Your task to perform on an android device: Open Wikipedia Image 0: 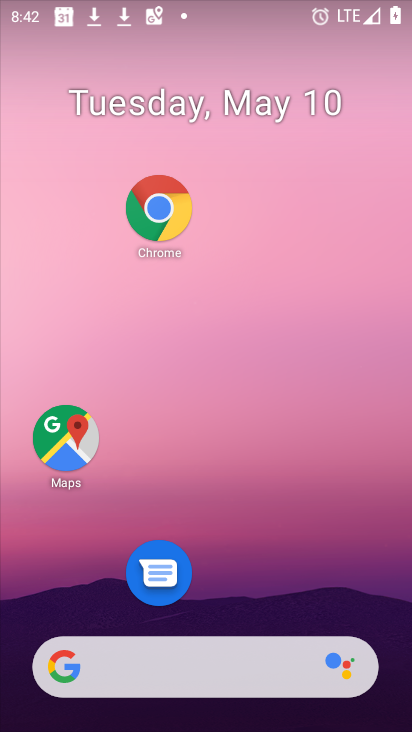
Step 0: press home button
Your task to perform on an android device: Open Wikipedia Image 1: 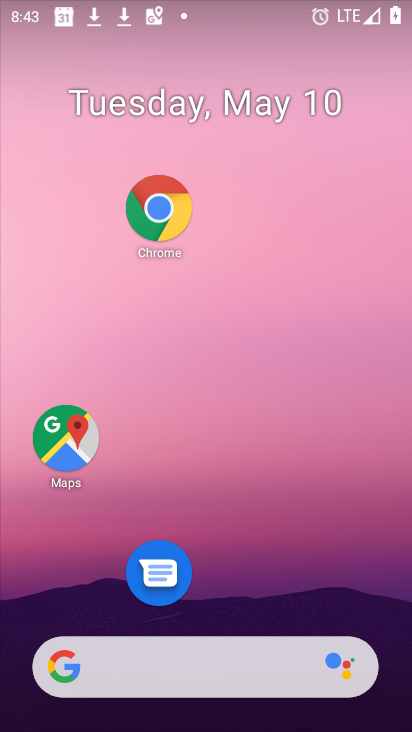
Step 1: drag from (216, 690) to (311, 176)
Your task to perform on an android device: Open Wikipedia Image 2: 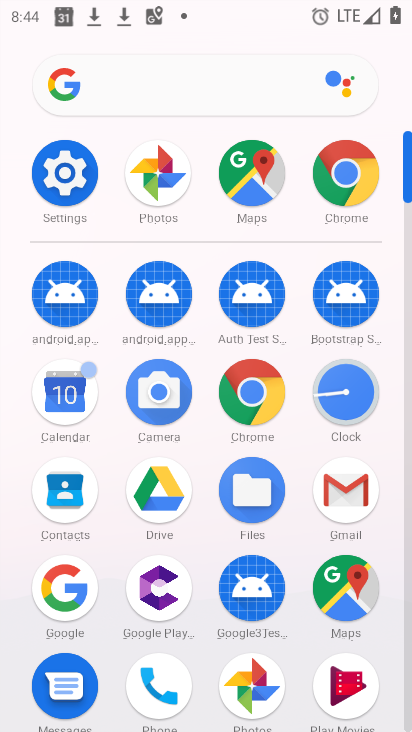
Step 2: click (329, 187)
Your task to perform on an android device: Open Wikipedia Image 3: 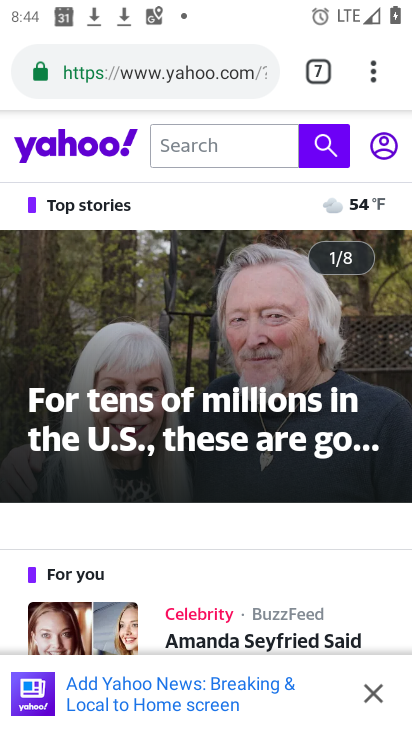
Step 3: click (319, 60)
Your task to perform on an android device: Open Wikipedia Image 4: 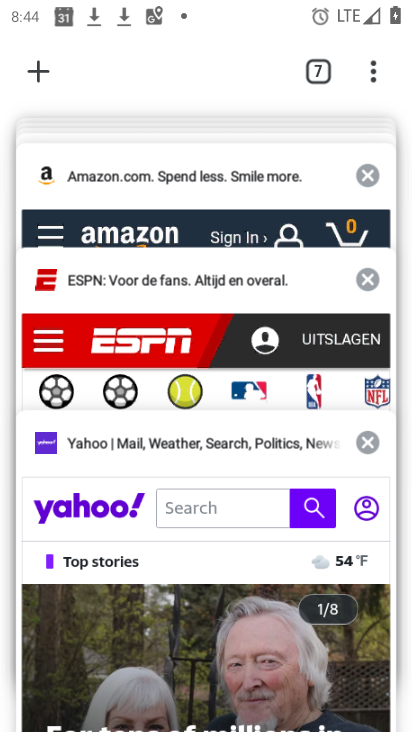
Step 4: click (36, 67)
Your task to perform on an android device: Open Wikipedia Image 5: 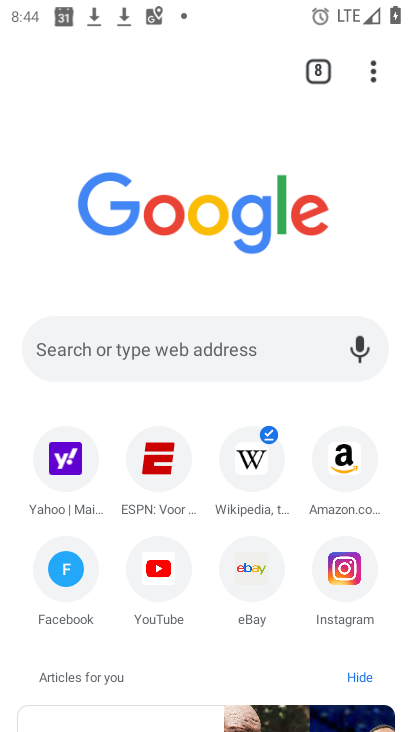
Step 5: click (255, 459)
Your task to perform on an android device: Open Wikipedia Image 6: 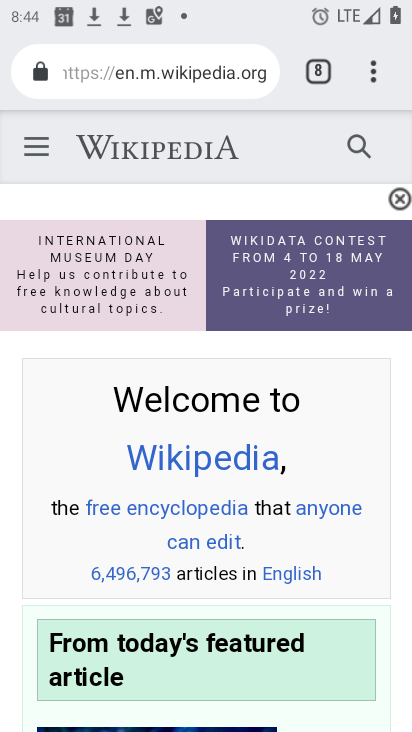
Step 6: task complete